Your task to perform on an android device: open app "Facebook Messenger" (install if not already installed), go to login, and select forgot password Image 0: 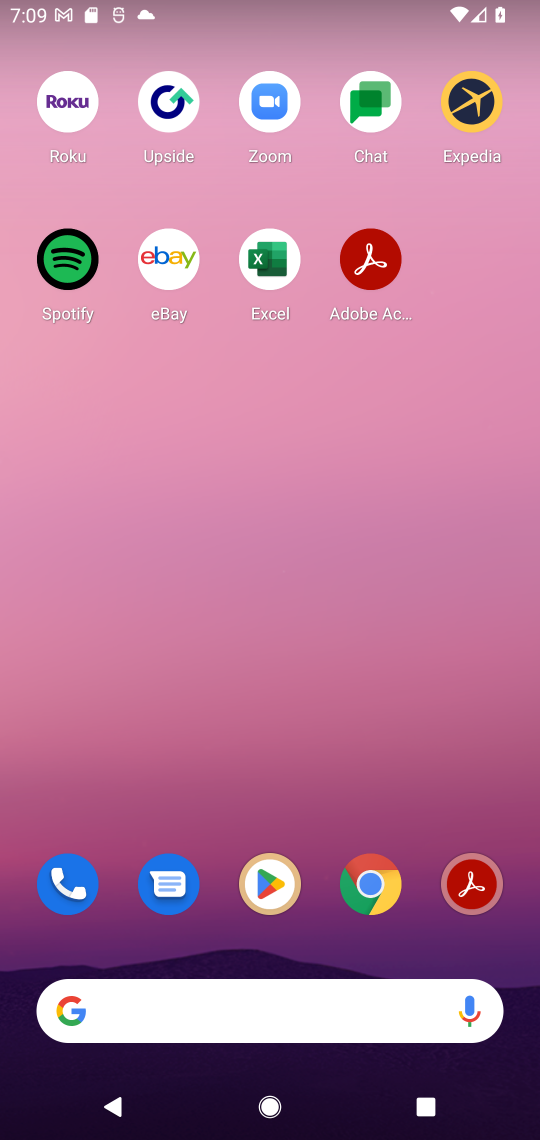
Step 0: drag from (189, 999) to (334, 53)
Your task to perform on an android device: open app "Facebook Messenger" (install if not already installed), go to login, and select forgot password Image 1: 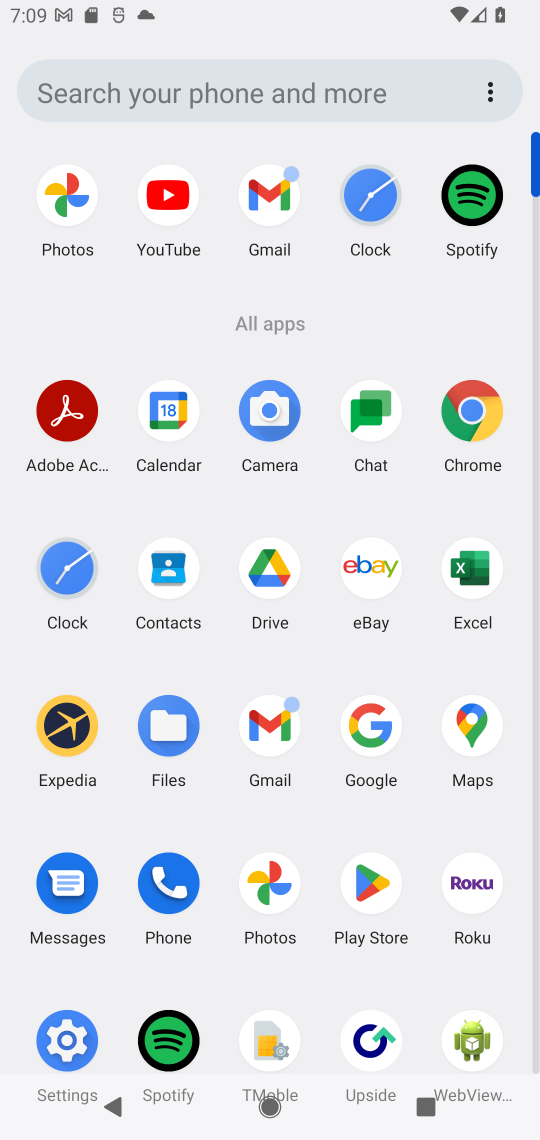
Step 1: click (374, 889)
Your task to perform on an android device: open app "Facebook Messenger" (install if not already installed), go to login, and select forgot password Image 2: 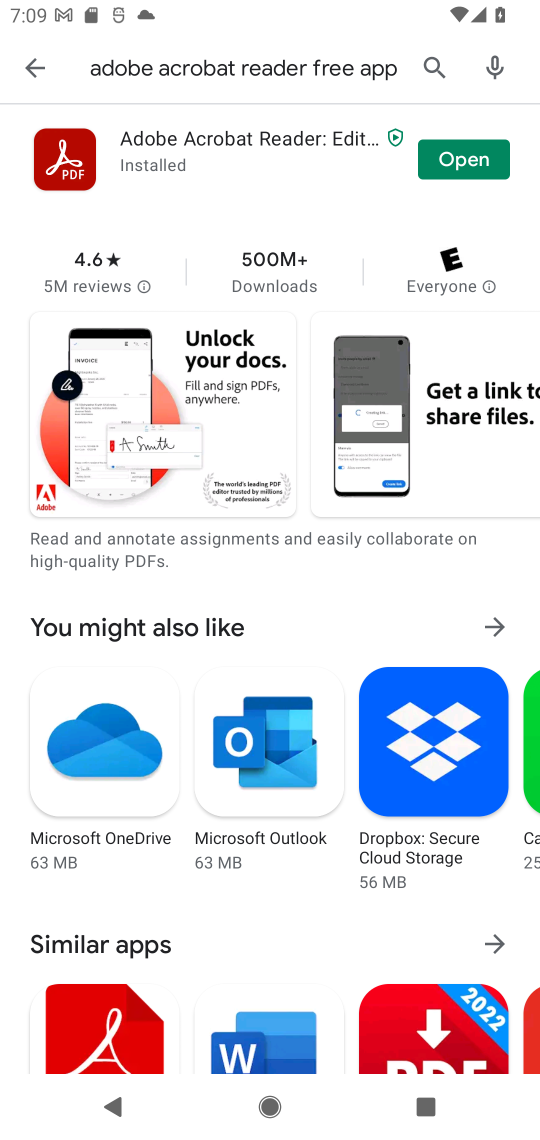
Step 2: press back button
Your task to perform on an android device: open app "Facebook Messenger" (install if not already installed), go to login, and select forgot password Image 3: 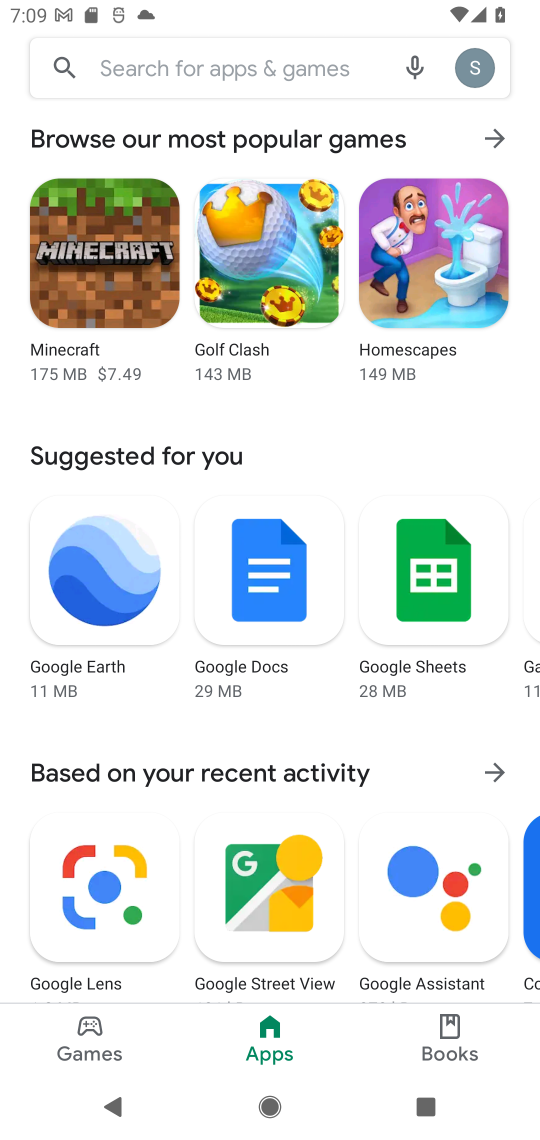
Step 3: click (335, 67)
Your task to perform on an android device: open app "Facebook Messenger" (install if not already installed), go to login, and select forgot password Image 4: 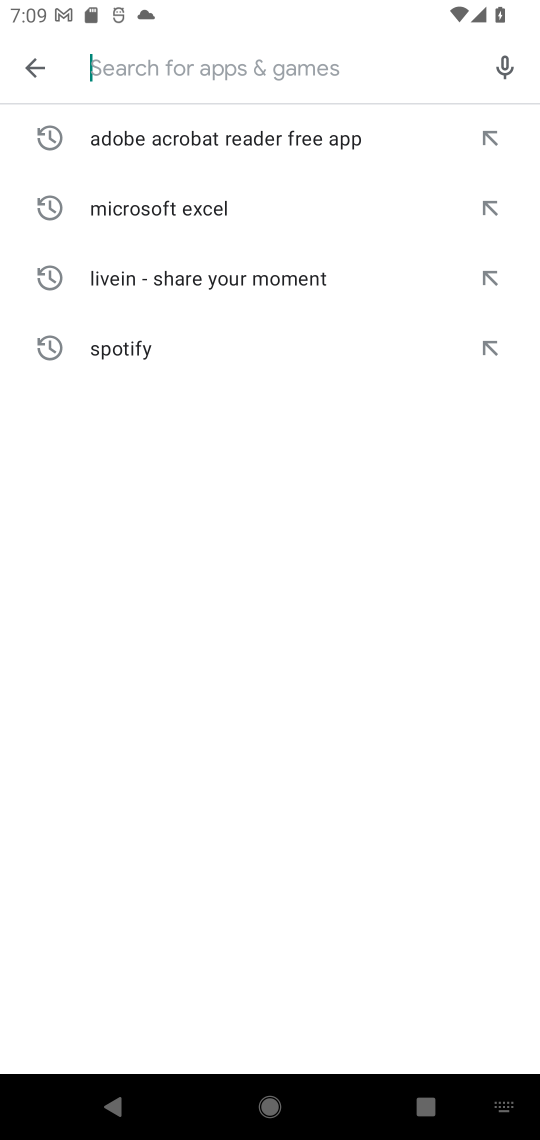
Step 4: type "Facebook Messenger"
Your task to perform on an android device: open app "Facebook Messenger" (install if not already installed), go to login, and select forgot password Image 5: 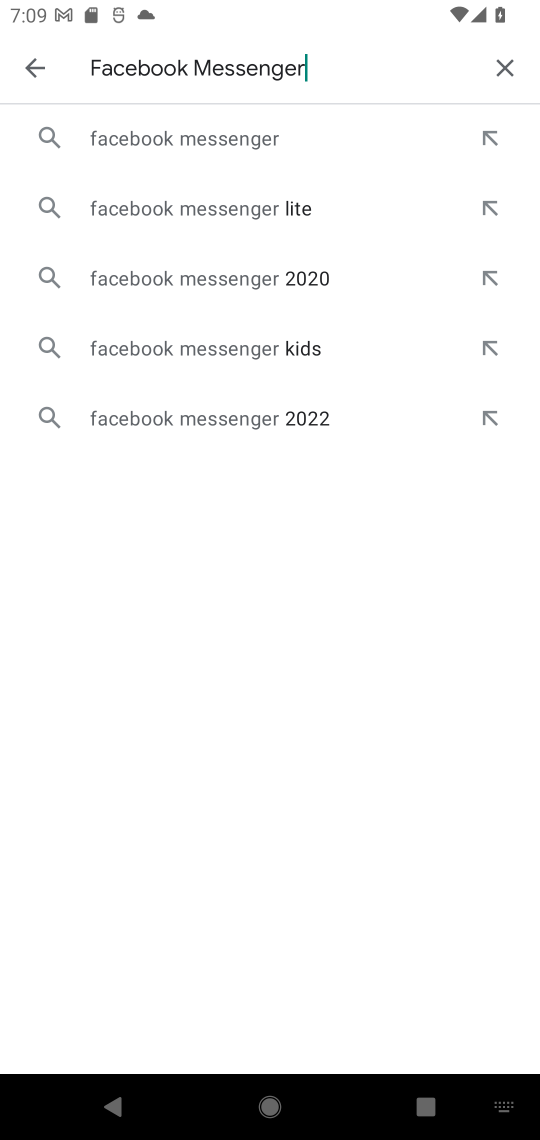
Step 5: click (226, 142)
Your task to perform on an android device: open app "Facebook Messenger" (install if not already installed), go to login, and select forgot password Image 6: 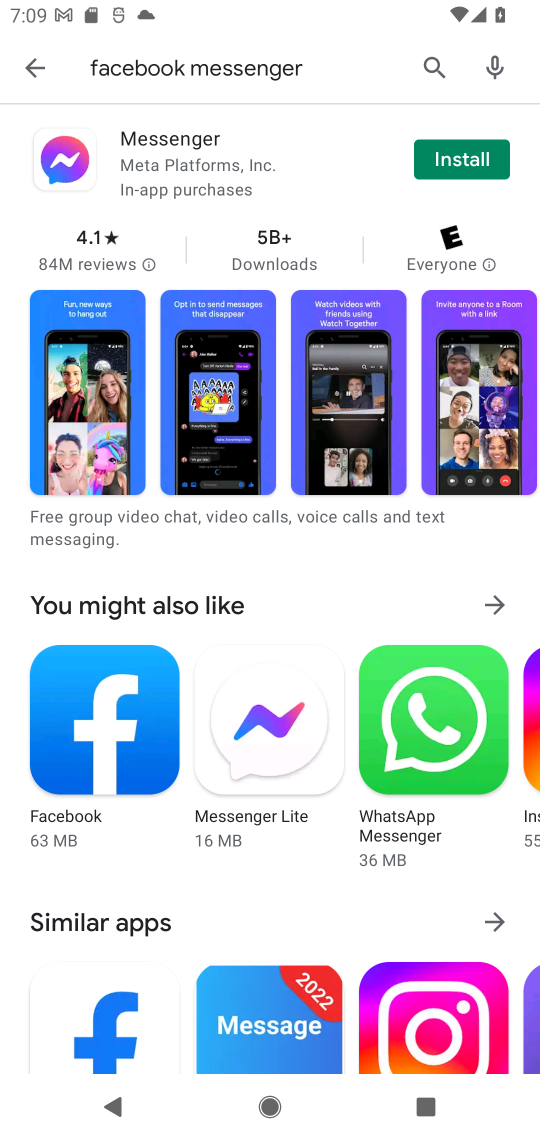
Step 6: click (450, 162)
Your task to perform on an android device: open app "Facebook Messenger" (install if not already installed), go to login, and select forgot password Image 7: 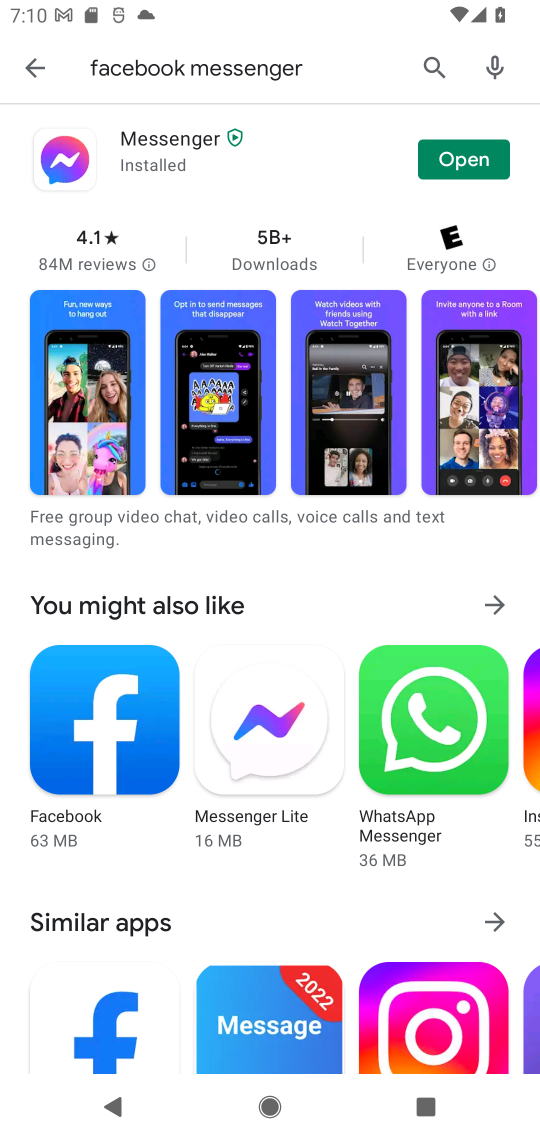
Step 7: click (466, 161)
Your task to perform on an android device: open app "Facebook Messenger" (install if not already installed), go to login, and select forgot password Image 8: 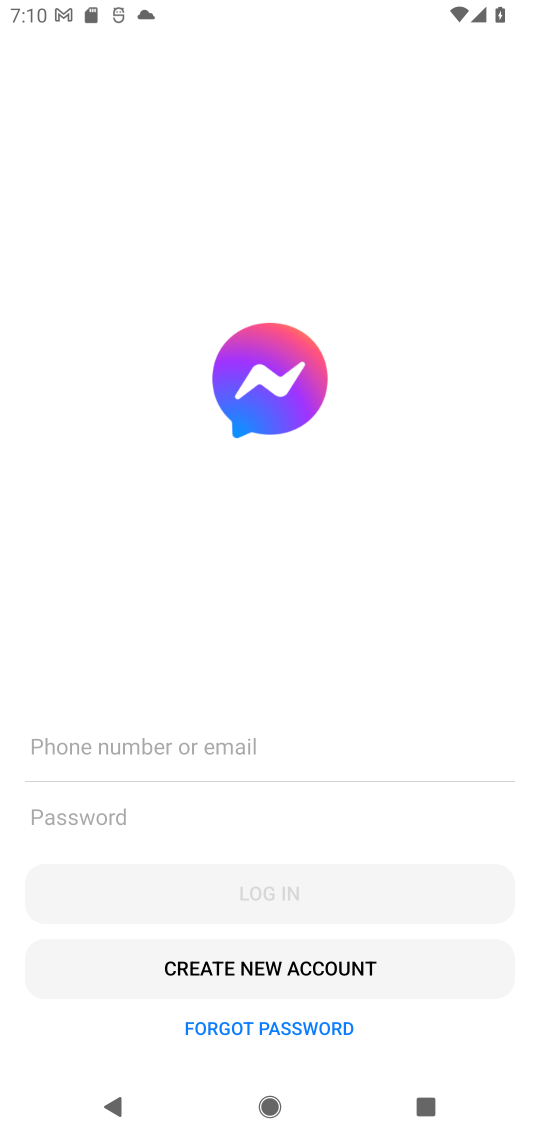
Step 8: click (280, 1024)
Your task to perform on an android device: open app "Facebook Messenger" (install if not already installed), go to login, and select forgot password Image 9: 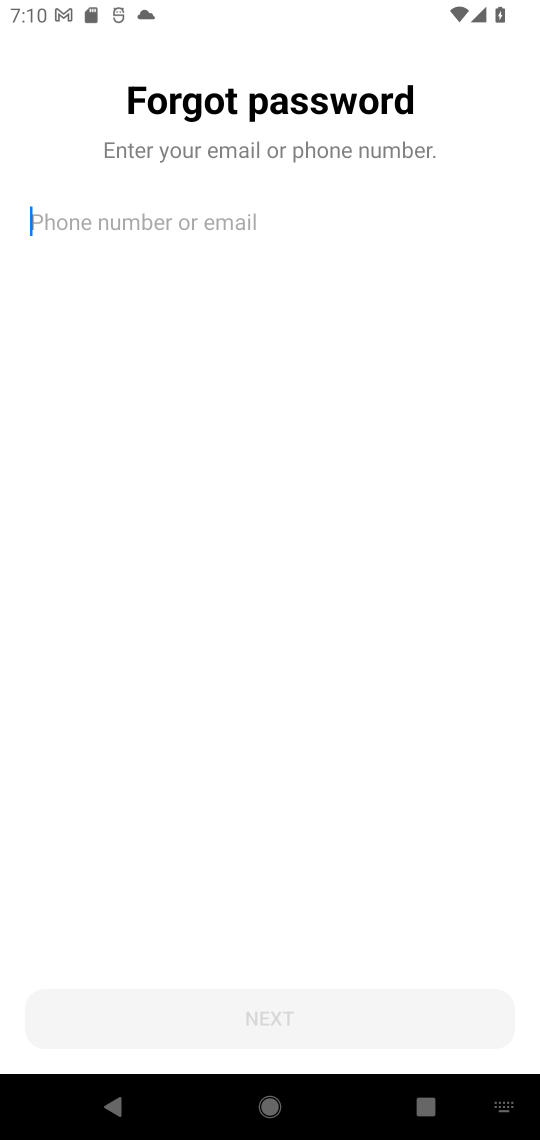
Step 9: task complete